Your task to perform on an android device: Go to accessibility settings Image 0: 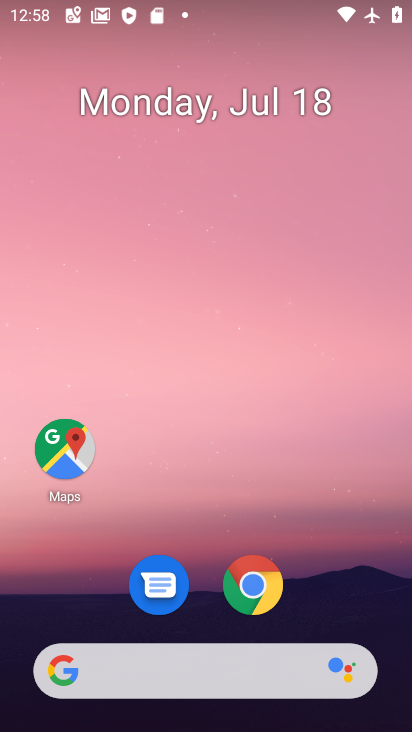
Step 0: drag from (188, 667) to (188, 150)
Your task to perform on an android device: Go to accessibility settings Image 1: 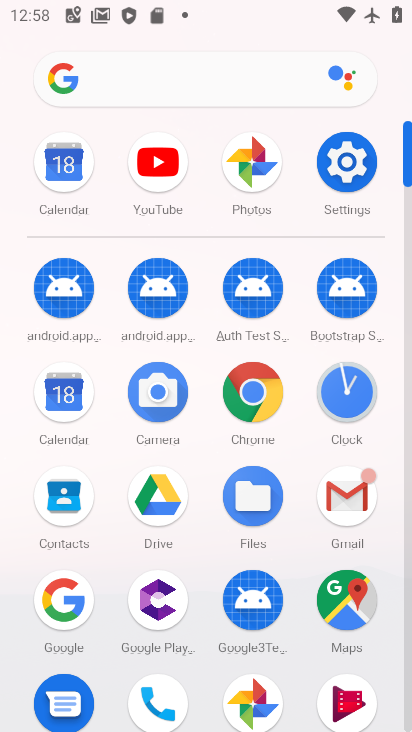
Step 1: click (337, 171)
Your task to perform on an android device: Go to accessibility settings Image 2: 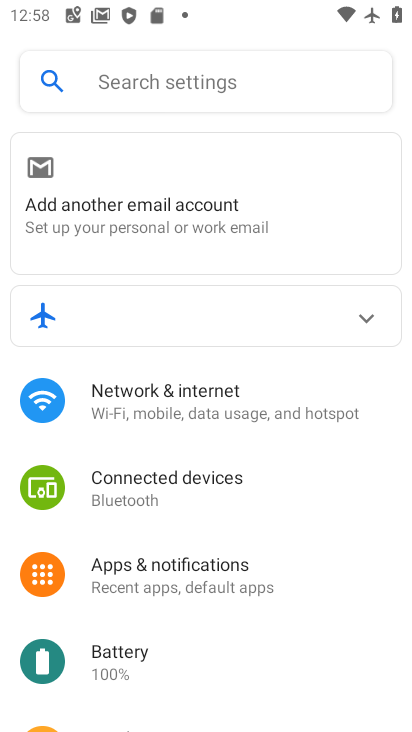
Step 2: drag from (249, 654) to (178, 98)
Your task to perform on an android device: Go to accessibility settings Image 3: 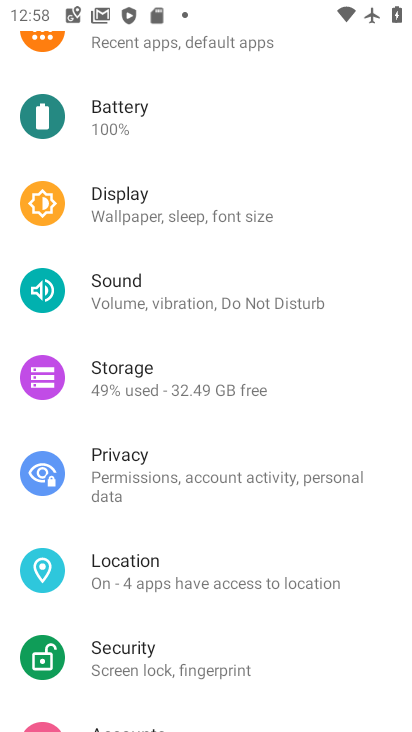
Step 3: drag from (200, 610) to (151, 130)
Your task to perform on an android device: Go to accessibility settings Image 4: 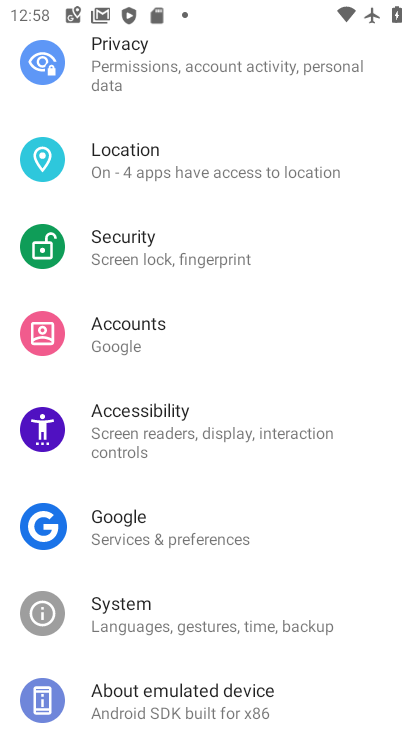
Step 4: click (135, 420)
Your task to perform on an android device: Go to accessibility settings Image 5: 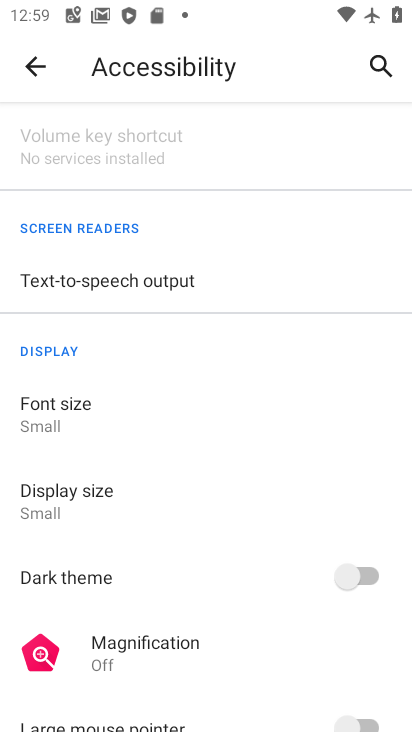
Step 5: task complete